Your task to perform on an android device: Open Chrome and go to the settings page Image 0: 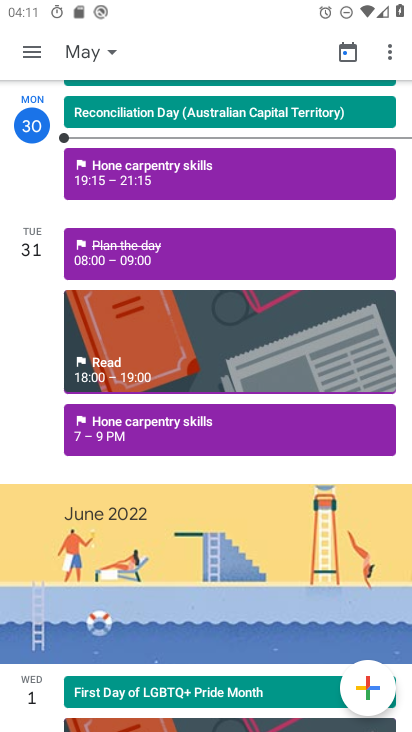
Step 0: press home button
Your task to perform on an android device: Open Chrome and go to the settings page Image 1: 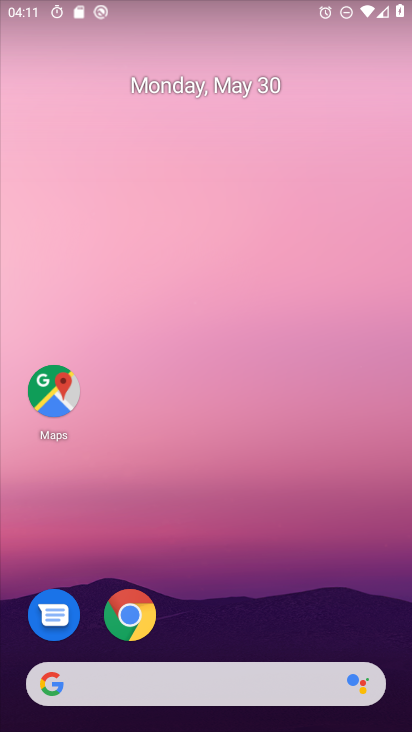
Step 1: click (130, 614)
Your task to perform on an android device: Open Chrome and go to the settings page Image 2: 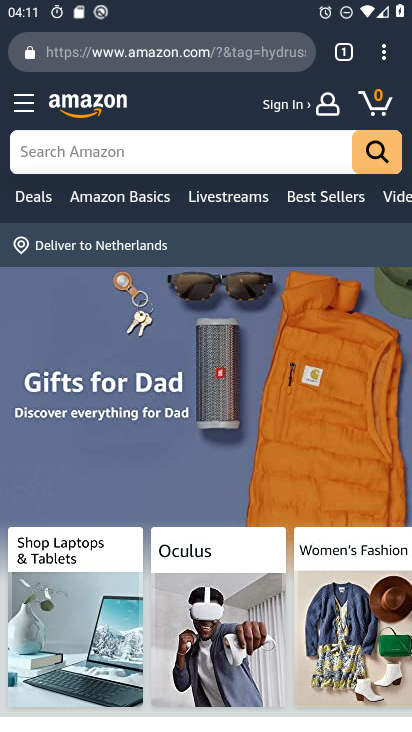
Step 2: click (386, 52)
Your task to perform on an android device: Open Chrome and go to the settings page Image 3: 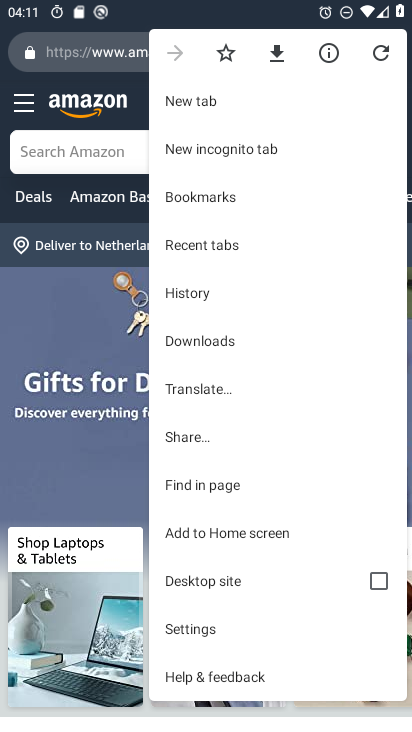
Step 3: click (208, 636)
Your task to perform on an android device: Open Chrome and go to the settings page Image 4: 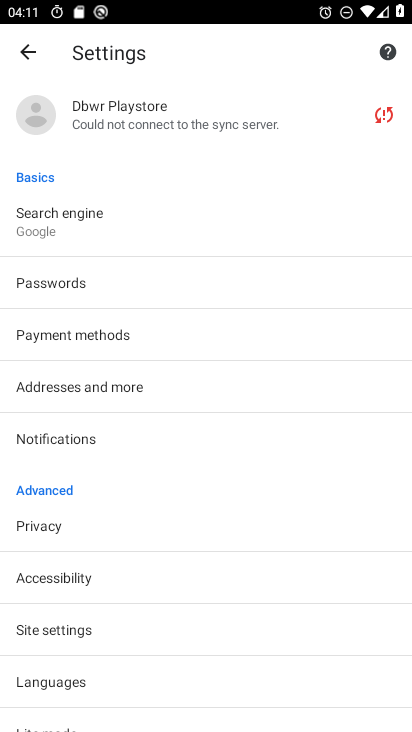
Step 4: task complete